Your task to perform on an android device: check android version Image 0: 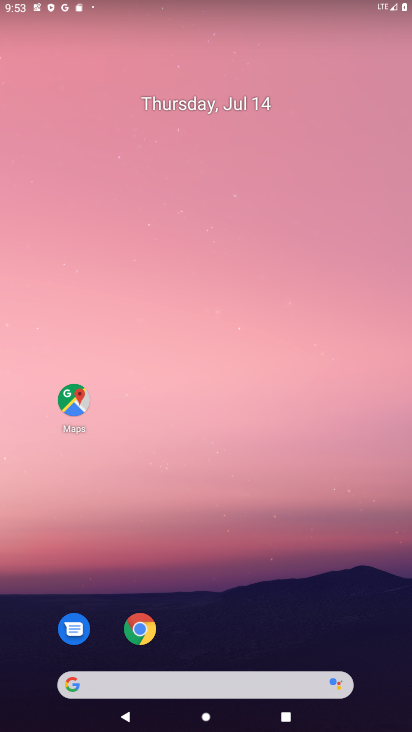
Step 0: drag from (21, 720) to (247, 149)
Your task to perform on an android device: check android version Image 1: 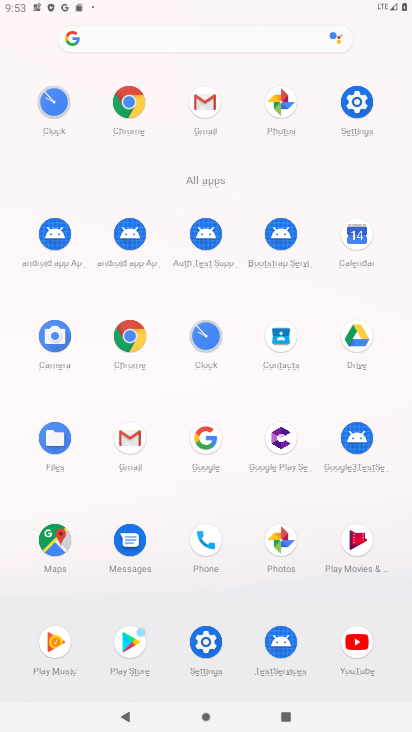
Step 1: click (372, 114)
Your task to perform on an android device: check android version Image 2: 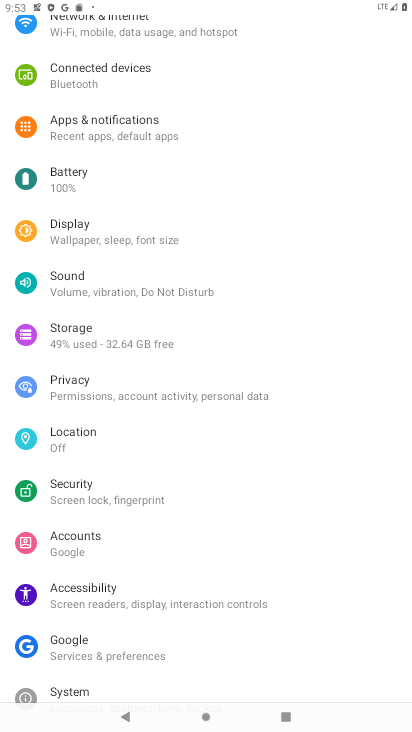
Step 2: drag from (131, 669) to (330, 129)
Your task to perform on an android device: check android version Image 3: 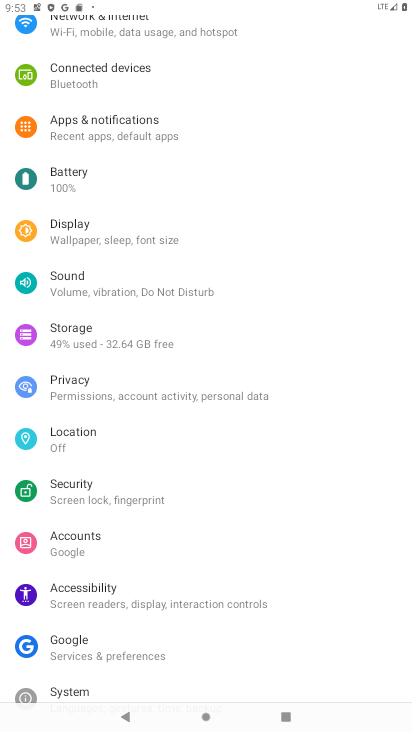
Step 3: drag from (85, 685) to (333, 164)
Your task to perform on an android device: check android version Image 4: 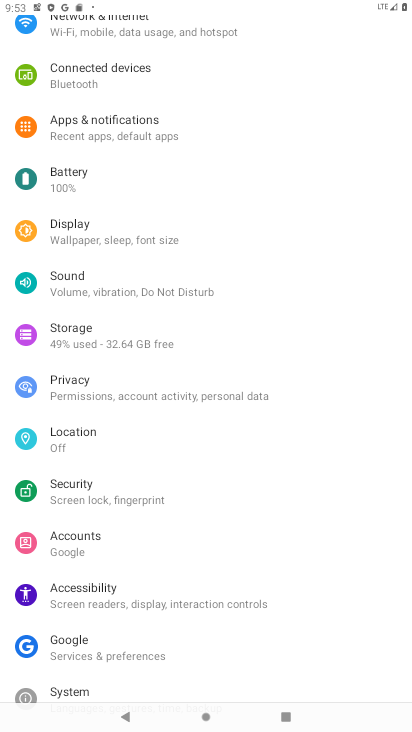
Step 4: drag from (18, 495) to (278, 58)
Your task to perform on an android device: check android version Image 5: 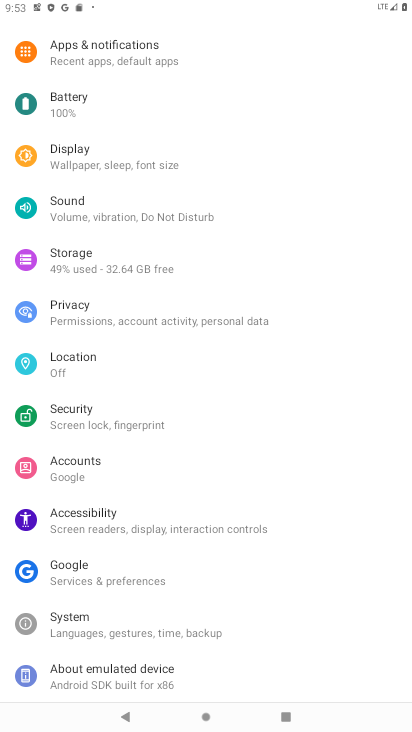
Step 5: click (125, 674)
Your task to perform on an android device: check android version Image 6: 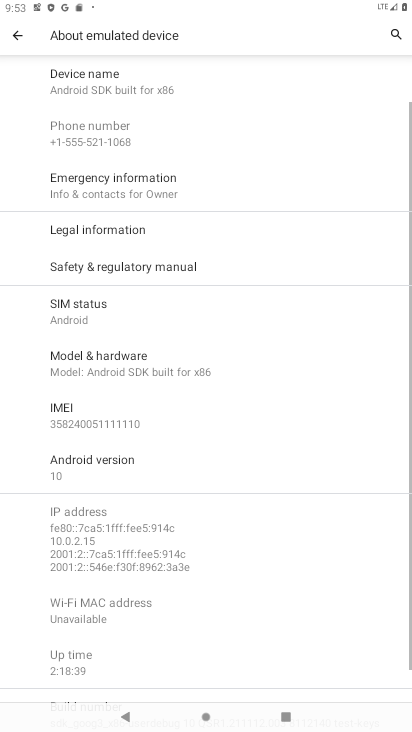
Step 6: click (232, 447)
Your task to perform on an android device: check android version Image 7: 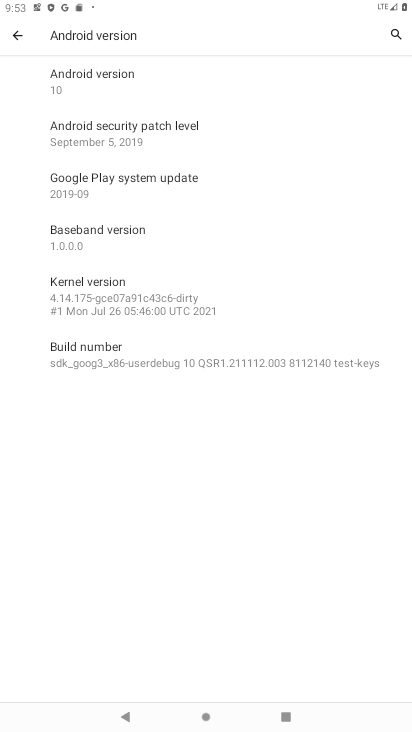
Step 7: task complete